Your task to perform on an android device: Open ESPN.com Image 0: 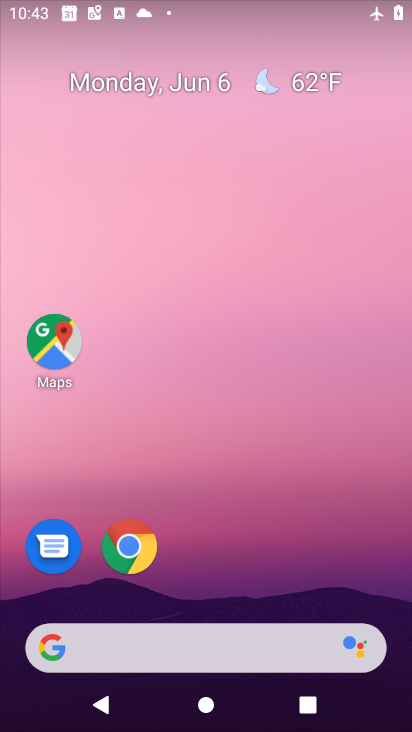
Step 0: click (130, 549)
Your task to perform on an android device: Open ESPN.com Image 1: 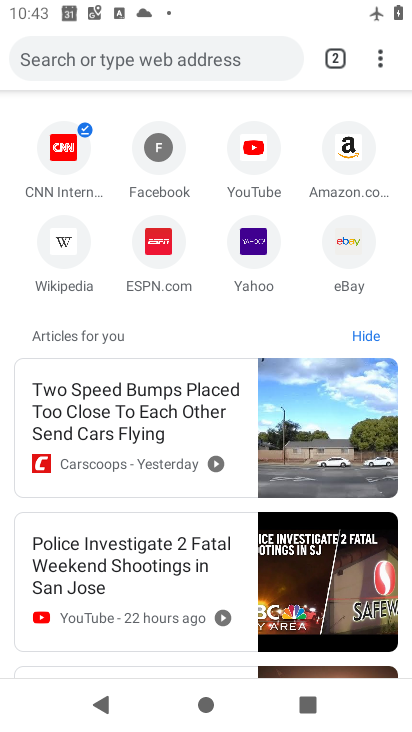
Step 1: click (152, 243)
Your task to perform on an android device: Open ESPN.com Image 2: 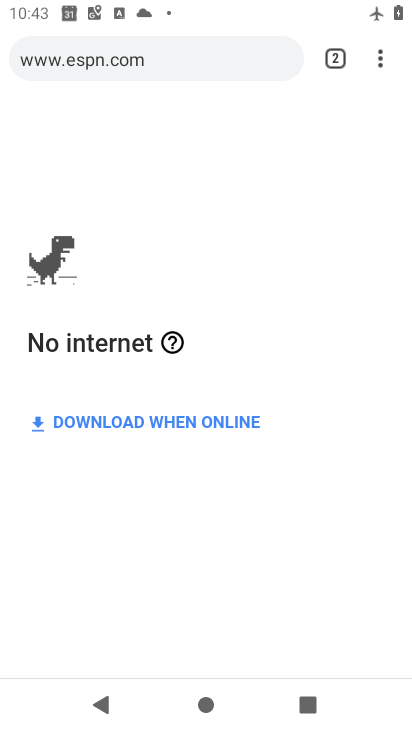
Step 2: task complete